Your task to perform on an android device: Look up the best rated kitchen knives on Amazon. Image 0: 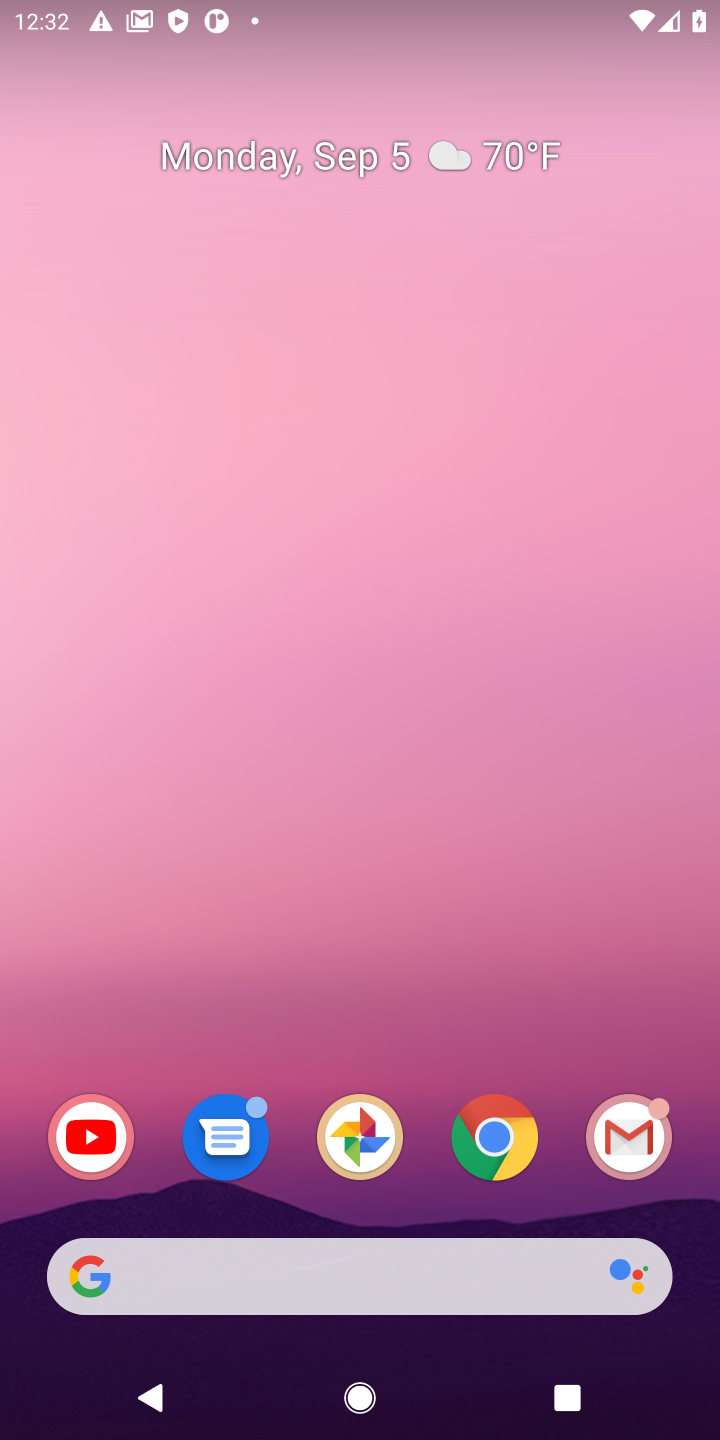
Step 0: click (490, 1180)
Your task to perform on an android device: Look up the best rated kitchen knives on Amazon. Image 1: 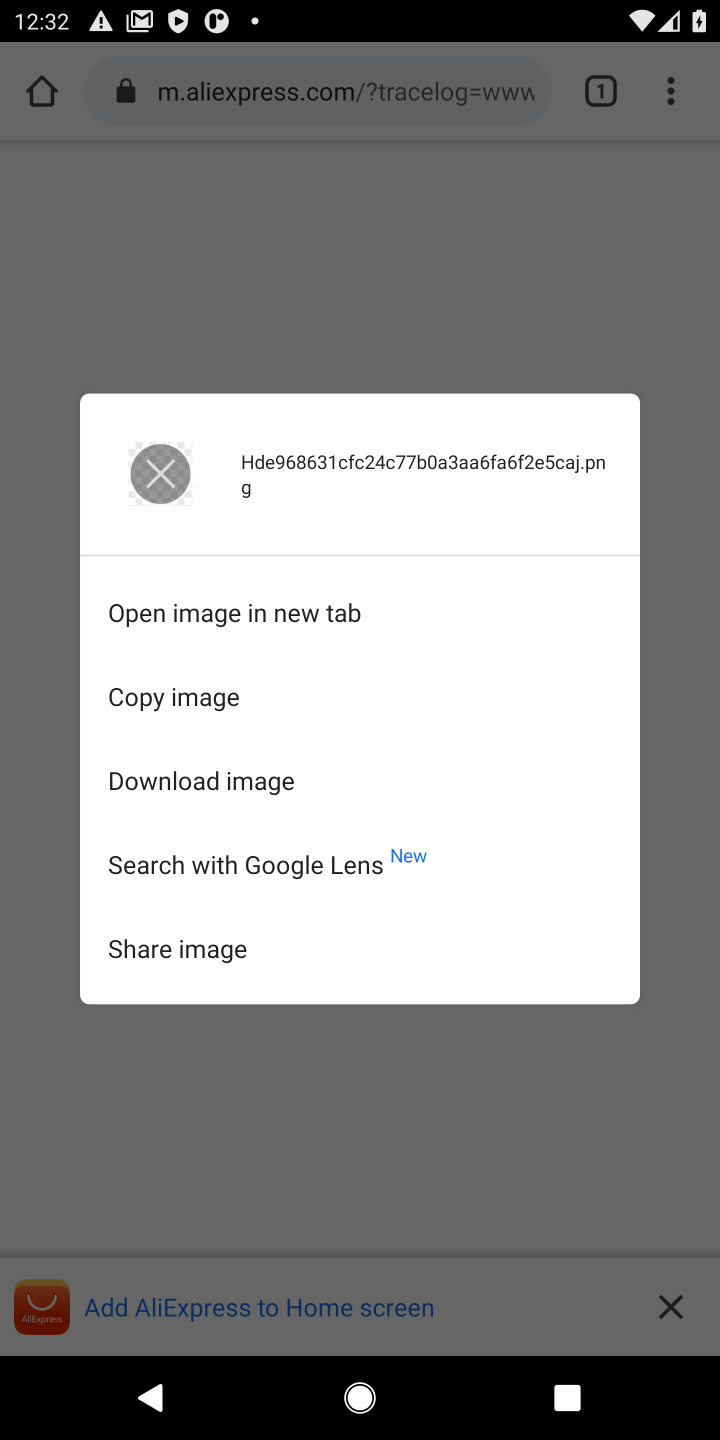
Step 1: click (278, 116)
Your task to perform on an android device: Look up the best rated kitchen knives on Amazon. Image 2: 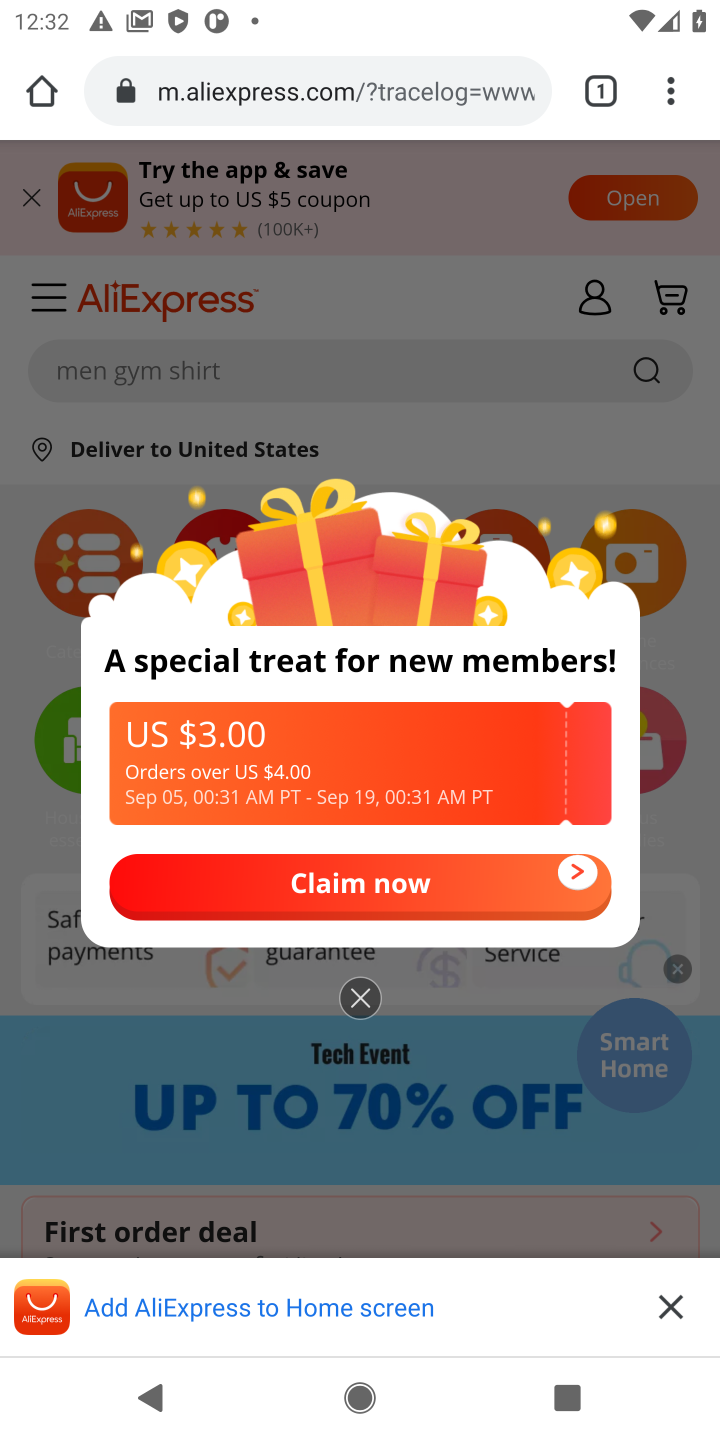
Step 2: click (278, 112)
Your task to perform on an android device: Look up the best rated kitchen knives on Amazon. Image 3: 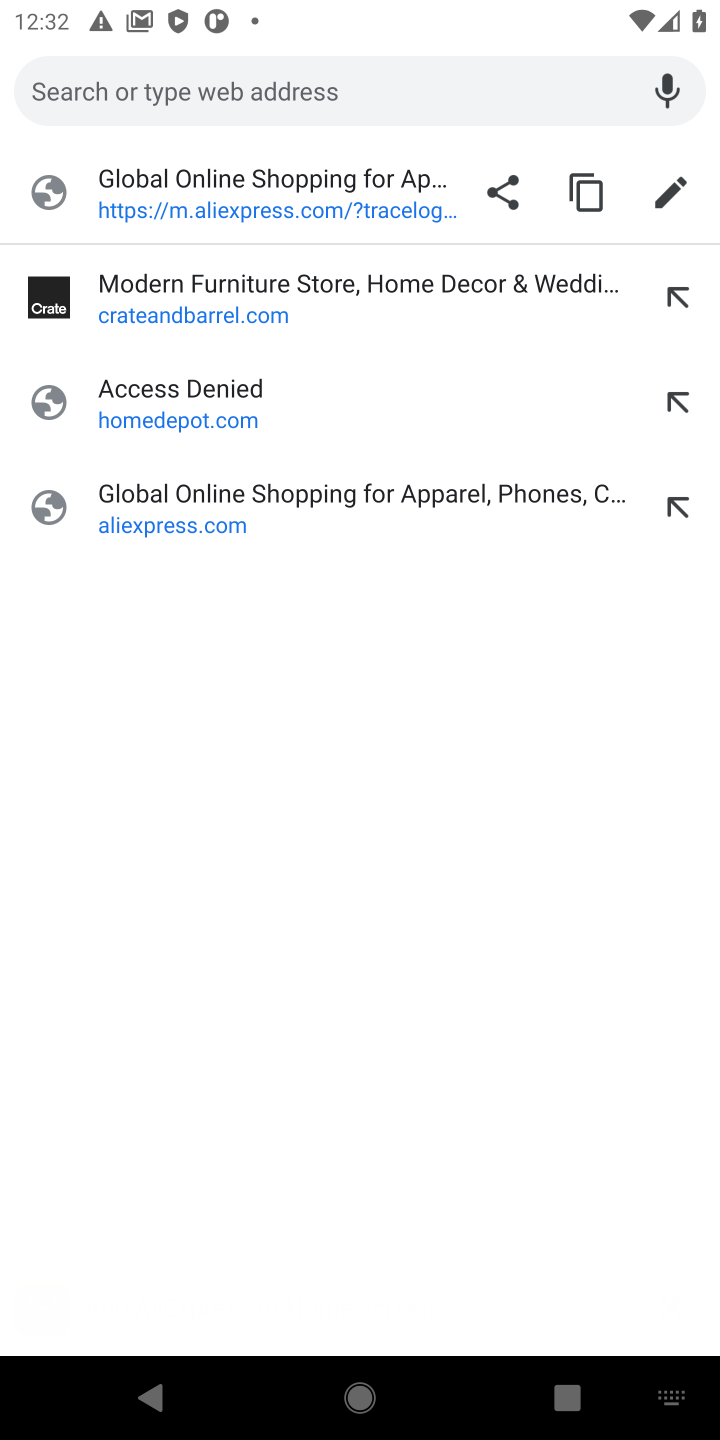
Step 3: type "amazon"
Your task to perform on an android device: Look up the best rated kitchen knives on Amazon. Image 4: 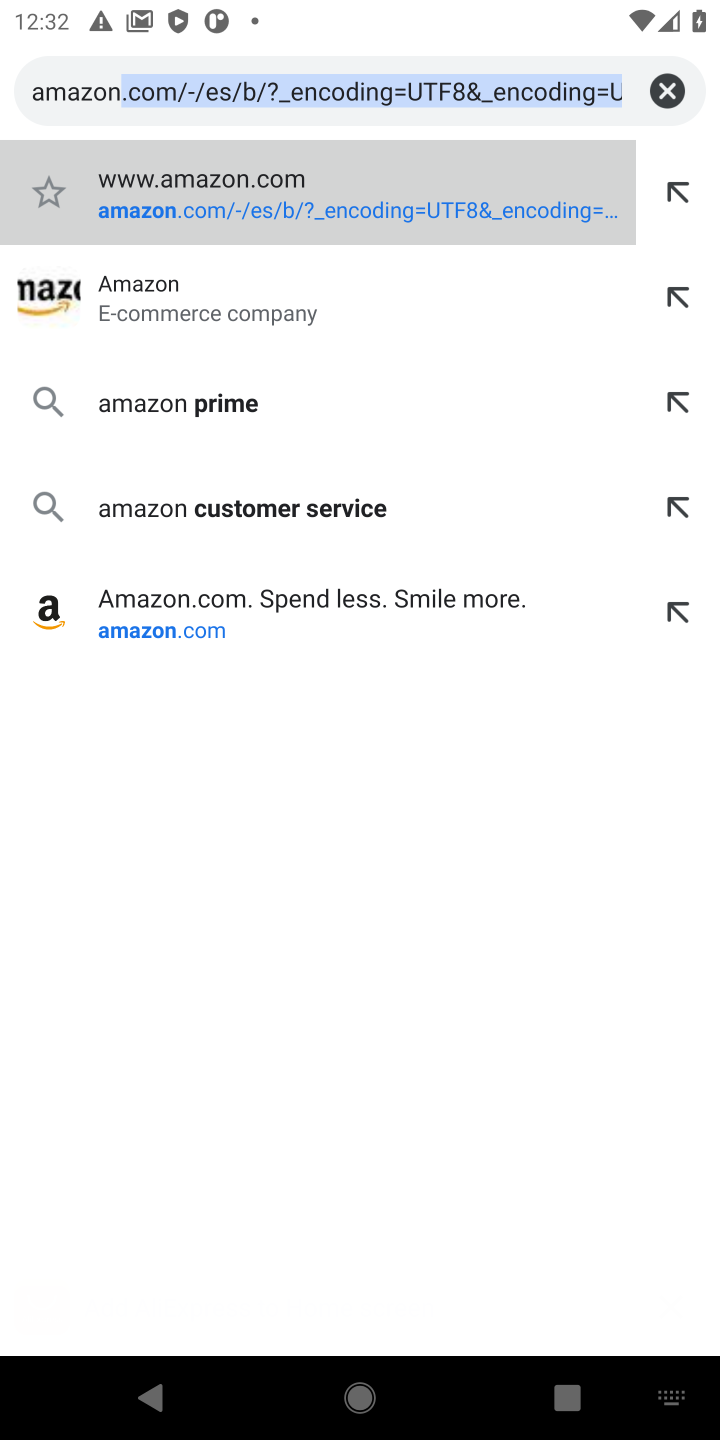
Step 4: click (375, 178)
Your task to perform on an android device: Look up the best rated kitchen knives on Amazon. Image 5: 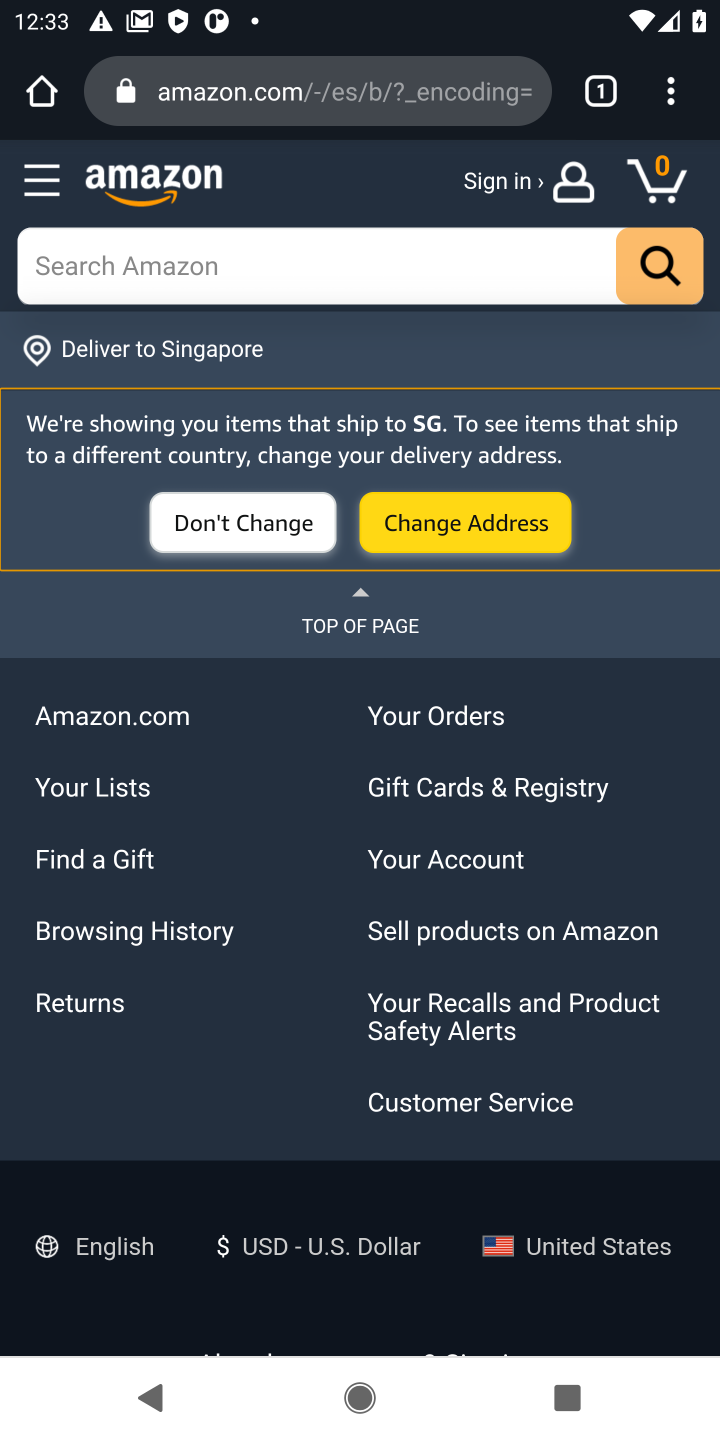
Step 5: click (293, 279)
Your task to perform on an android device: Look up the best rated kitchen knives on Amazon. Image 6: 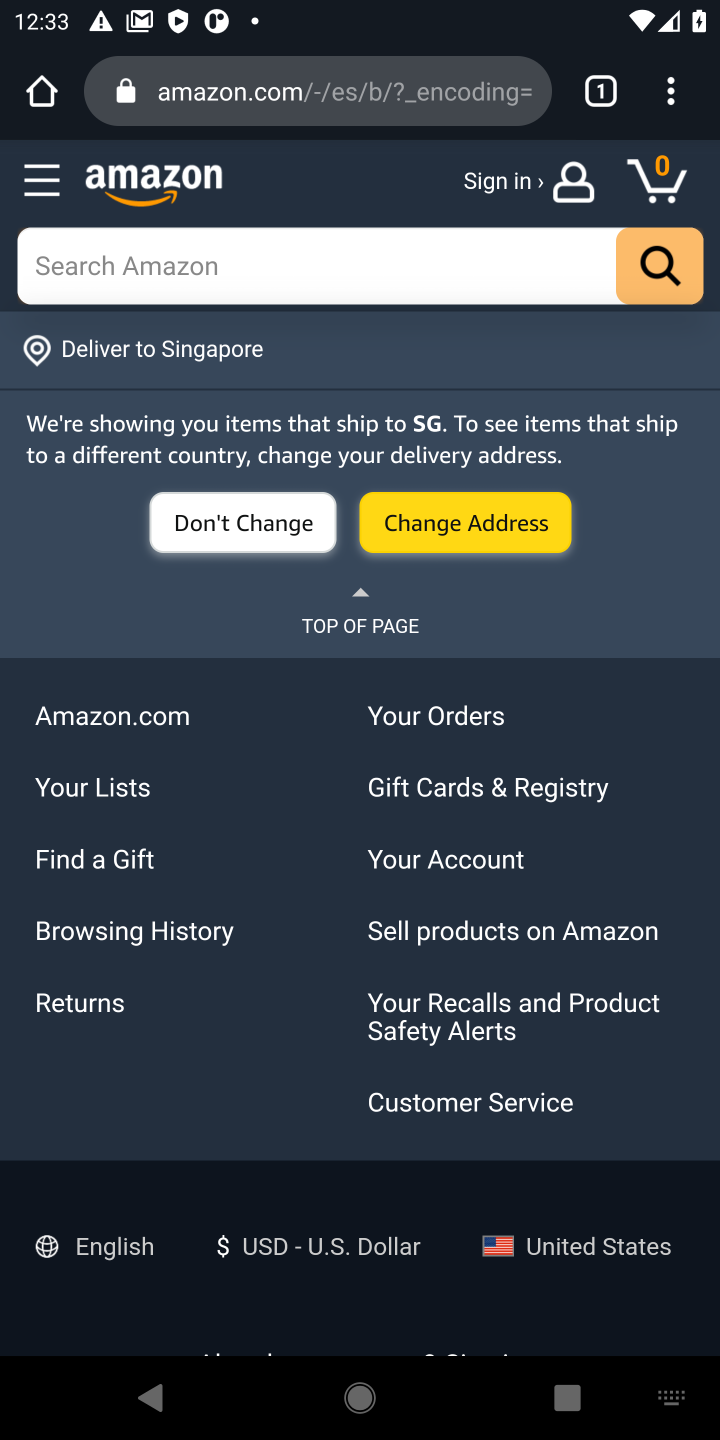
Step 6: click (381, 296)
Your task to perform on an android device: Look up the best rated kitchen knives on Amazon. Image 7: 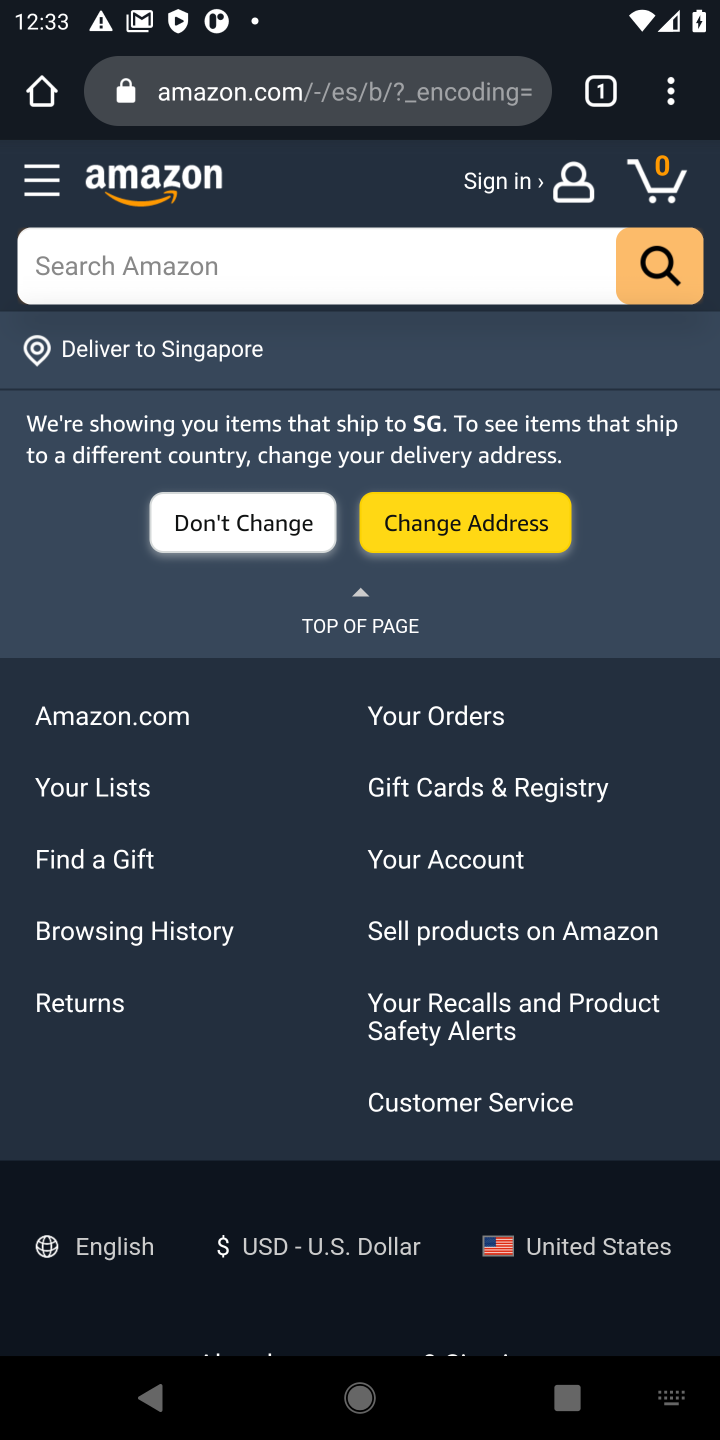
Step 7: type "best rated kitchen knives"
Your task to perform on an android device: Look up the best rated kitchen knives on Amazon. Image 8: 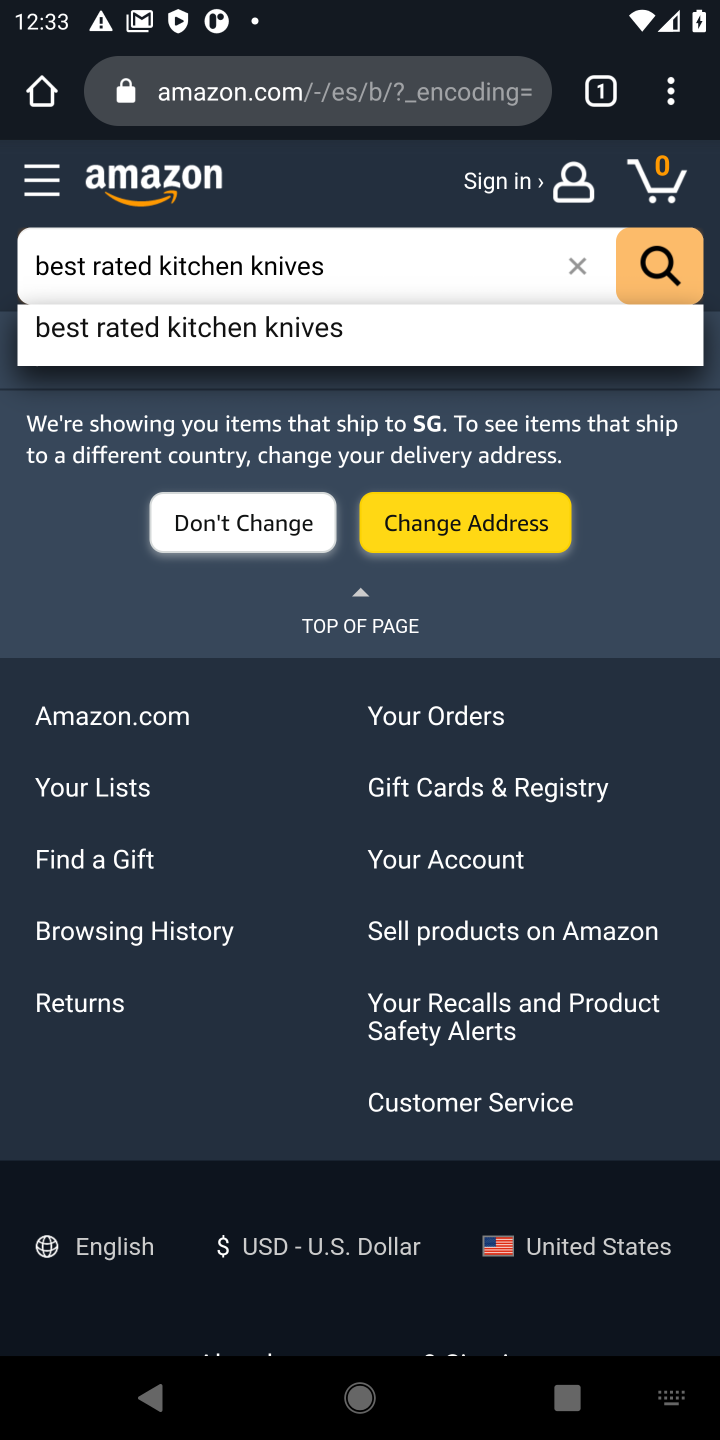
Step 8: click (300, 327)
Your task to perform on an android device: Look up the best rated kitchen knives on Amazon. Image 9: 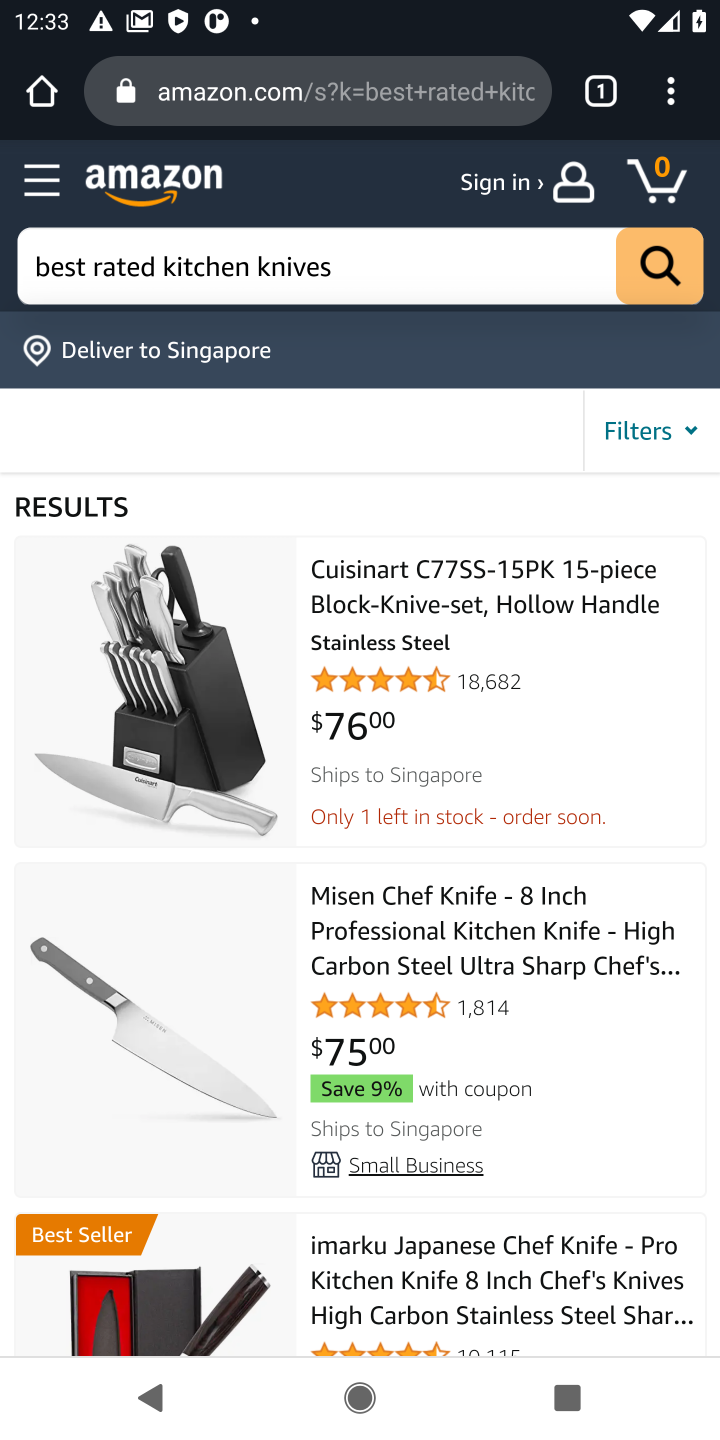
Step 9: task complete